Your task to perform on an android device: check google app version Image 0: 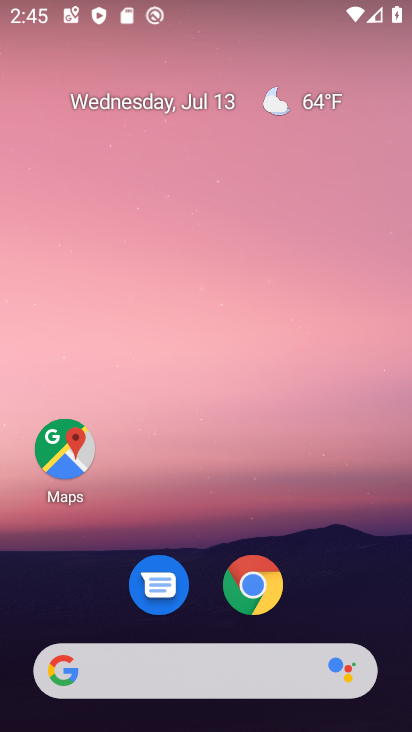
Step 0: drag from (221, 675) to (346, 87)
Your task to perform on an android device: check google app version Image 1: 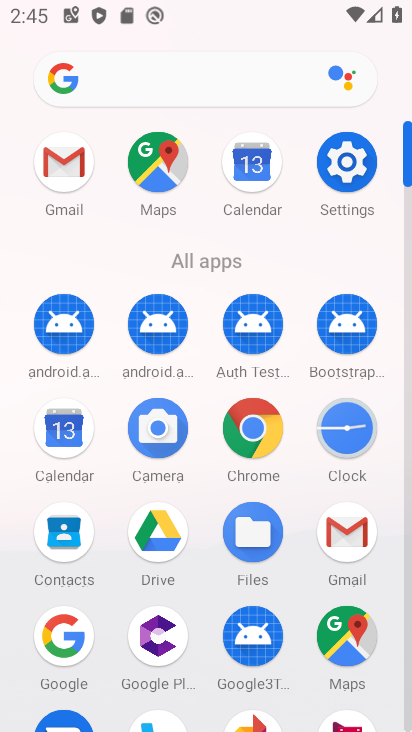
Step 1: click (71, 640)
Your task to perform on an android device: check google app version Image 2: 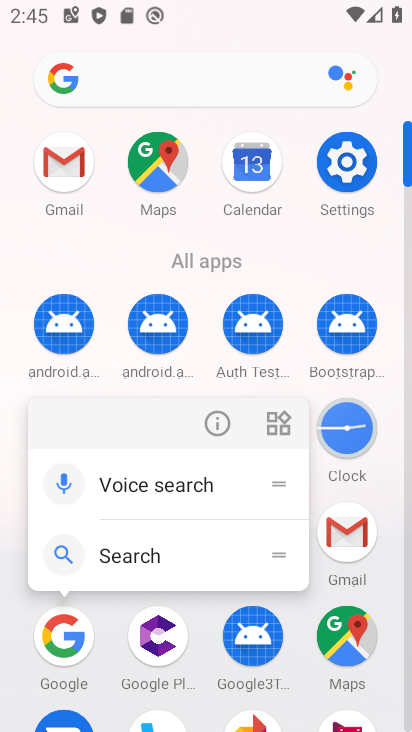
Step 2: click (214, 425)
Your task to perform on an android device: check google app version Image 3: 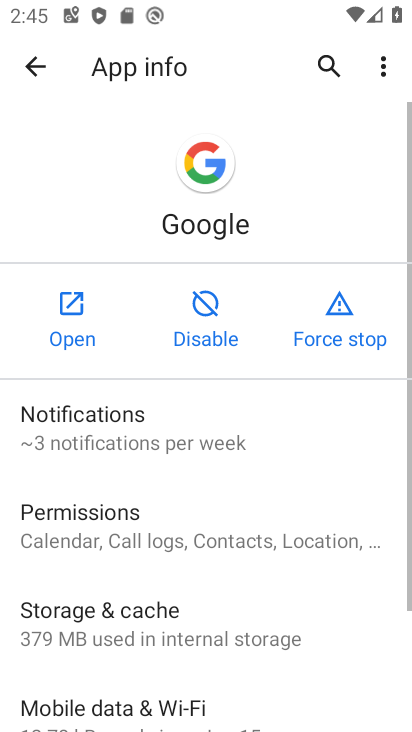
Step 3: drag from (191, 654) to (356, 188)
Your task to perform on an android device: check google app version Image 4: 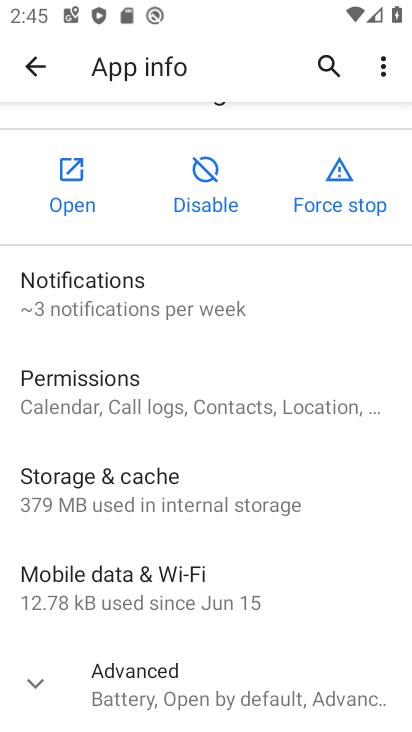
Step 4: click (167, 681)
Your task to perform on an android device: check google app version Image 5: 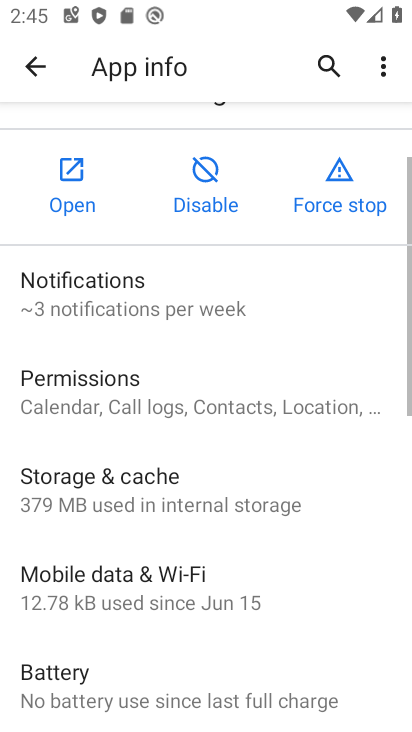
Step 5: task complete